Your task to perform on an android device: Clear the cart on costco.com. Search for razer blade on costco.com, select the first entry, and add it to the cart. Image 0: 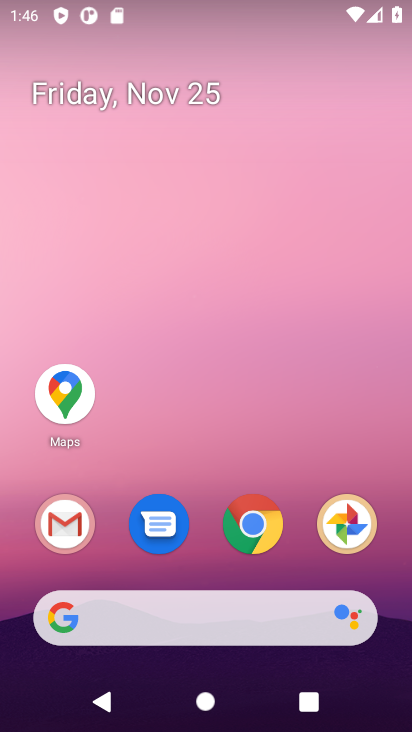
Step 0: click (256, 532)
Your task to perform on an android device: Clear the cart on costco.com. Search for razer blade on costco.com, select the first entry, and add it to the cart. Image 1: 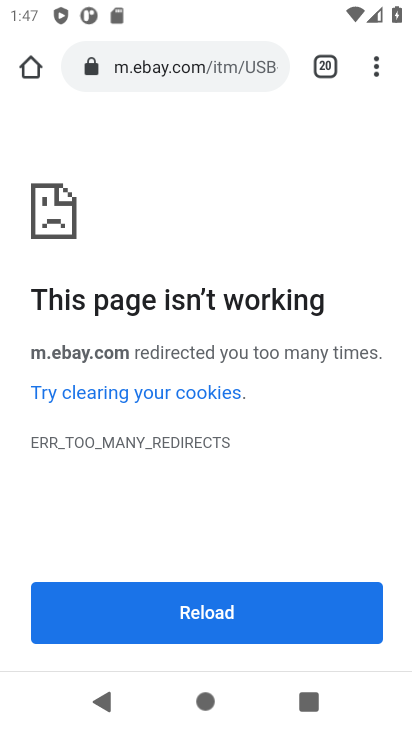
Step 1: click (174, 68)
Your task to perform on an android device: Clear the cart on costco.com. Search for razer blade on costco.com, select the first entry, and add it to the cart. Image 2: 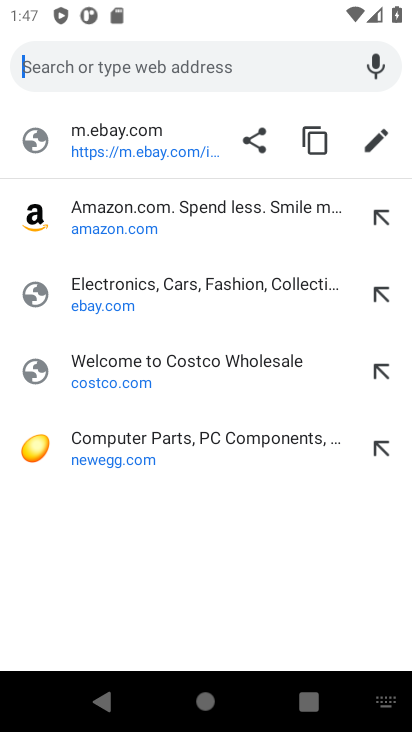
Step 2: click (114, 368)
Your task to perform on an android device: Clear the cart on costco.com. Search for razer blade on costco.com, select the first entry, and add it to the cart. Image 3: 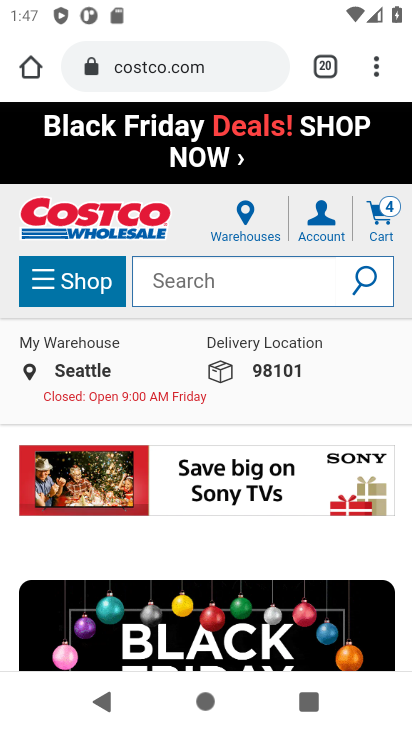
Step 3: click (377, 215)
Your task to perform on an android device: Clear the cart on costco.com. Search for razer blade on costco.com, select the first entry, and add it to the cart. Image 4: 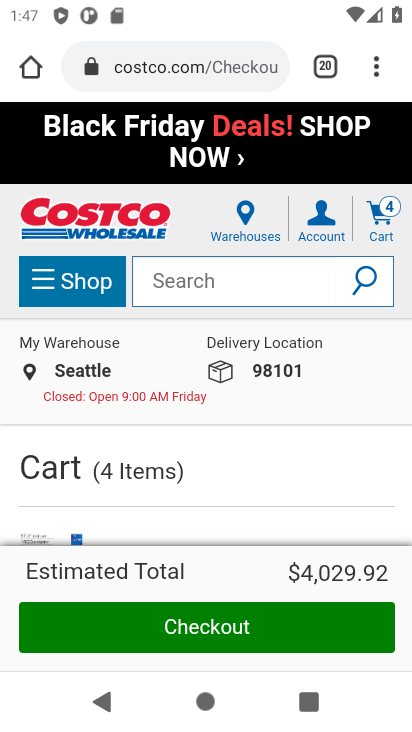
Step 4: drag from (286, 501) to (296, 124)
Your task to perform on an android device: Clear the cart on costco.com. Search for razer blade on costco.com, select the first entry, and add it to the cart. Image 5: 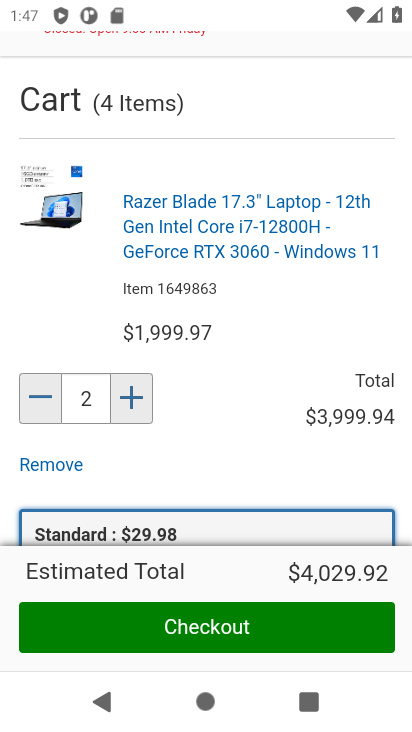
Step 5: drag from (154, 417) to (190, 131)
Your task to perform on an android device: Clear the cart on costco.com. Search for razer blade on costco.com, select the first entry, and add it to the cart. Image 6: 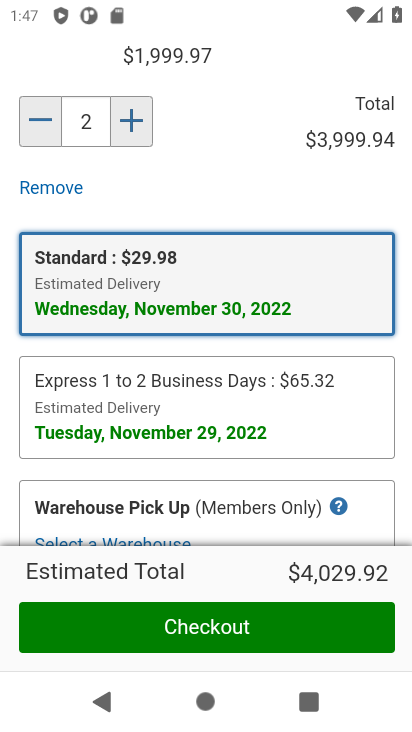
Step 6: drag from (244, 501) to (265, 174)
Your task to perform on an android device: Clear the cart on costco.com. Search for razer blade on costco.com, select the first entry, and add it to the cart. Image 7: 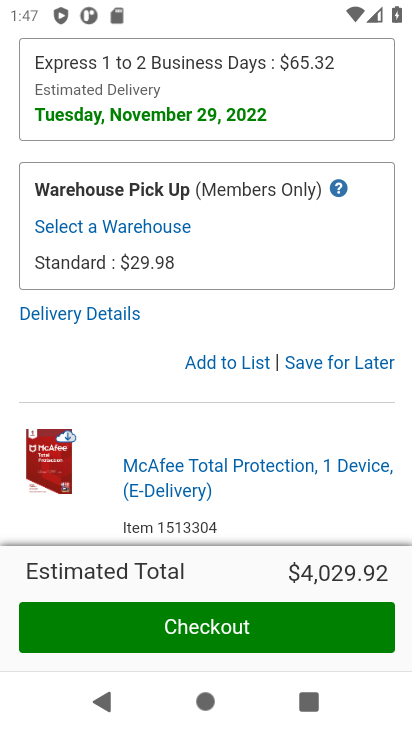
Step 7: click (306, 359)
Your task to perform on an android device: Clear the cart on costco.com. Search for razer blade on costco.com, select the first entry, and add it to the cart. Image 8: 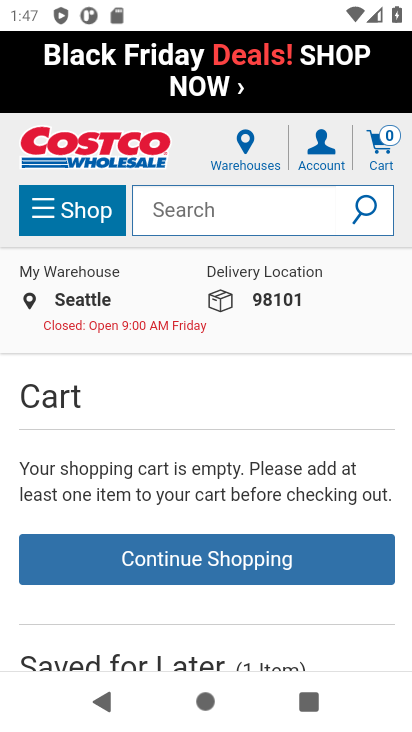
Step 8: click (171, 198)
Your task to perform on an android device: Clear the cart on costco.com. Search for razer blade on costco.com, select the first entry, and add it to the cart. Image 9: 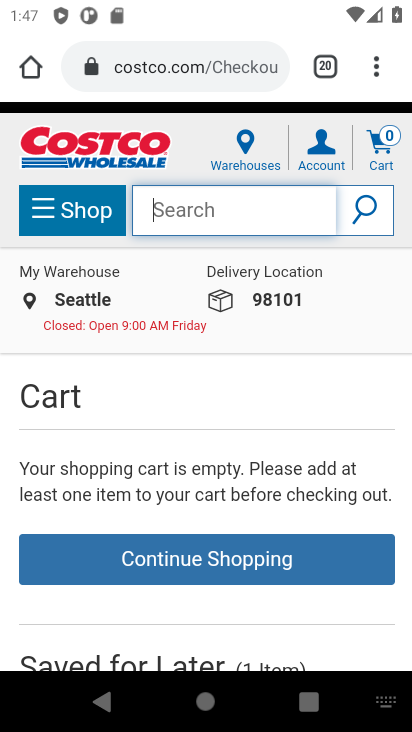
Step 9: type "razer blade"
Your task to perform on an android device: Clear the cart on costco.com. Search for razer blade on costco.com, select the first entry, and add it to the cart. Image 10: 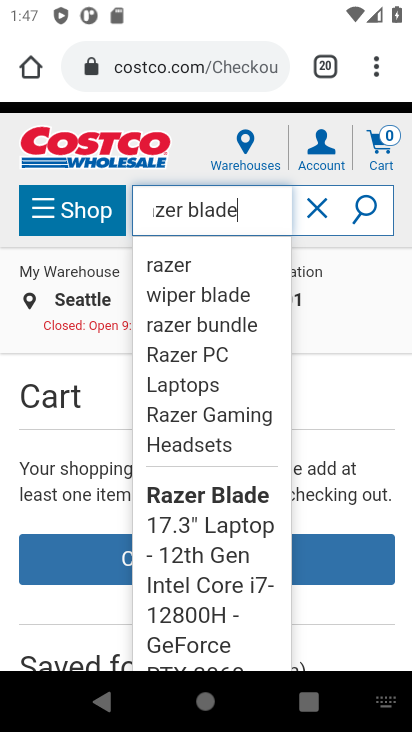
Step 10: click (359, 215)
Your task to perform on an android device: Clear the cart on costco.com. Search for razer blade on costco.com, select the first entry, and add it to the cart. Image 11: 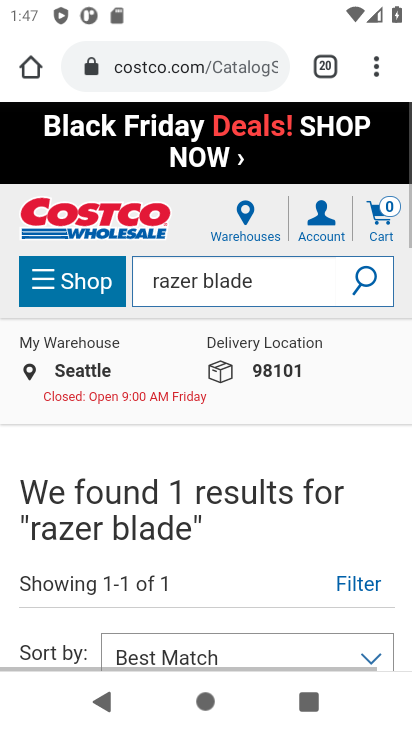
Step 11: drag from (218, 541) to (209, 212)
Your task to perform on an android device: Clear the cart on costco.com. Search for razer blade on costco.com, select the first entry, and add it to the cart. Image 12: 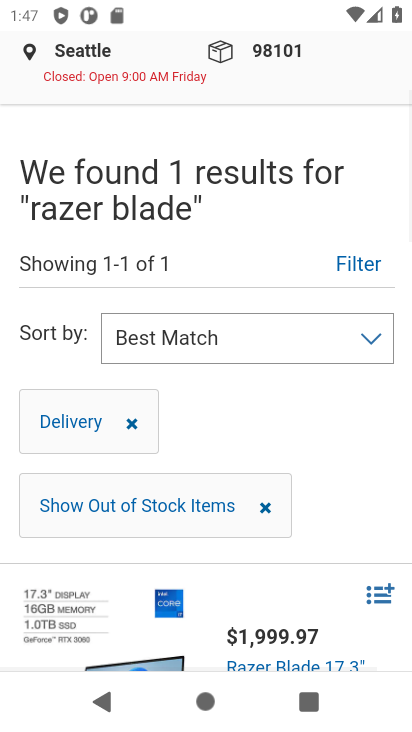
Step 12: drag from (200, 476) to (203, 145)
Your task to perform on an android device: Clear the cart on costco.com. Search for razer blade on costco.com, select the first entry, and add it to the cart. Image 13: 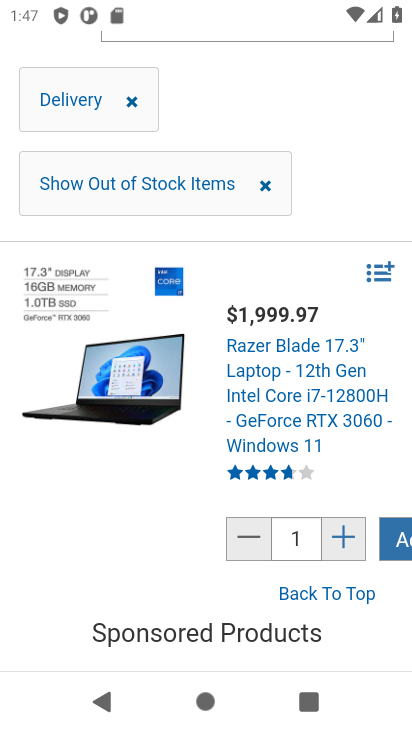
Step 13: click (397, 542)
Your task to perform on an android device: Clear the cart on costco.com. Search for razer blade on costco.com, select the first entry, and add it to the cart. Image 14: 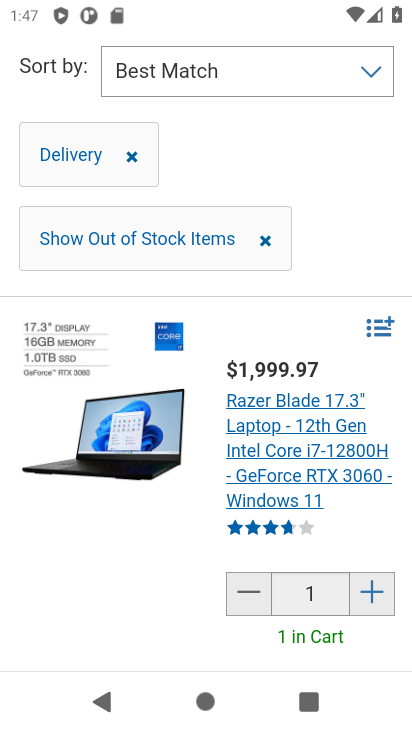
Step 14: task complete